Your task to perform on an android device: see tabs open on other devices in the chrome app Image 0: 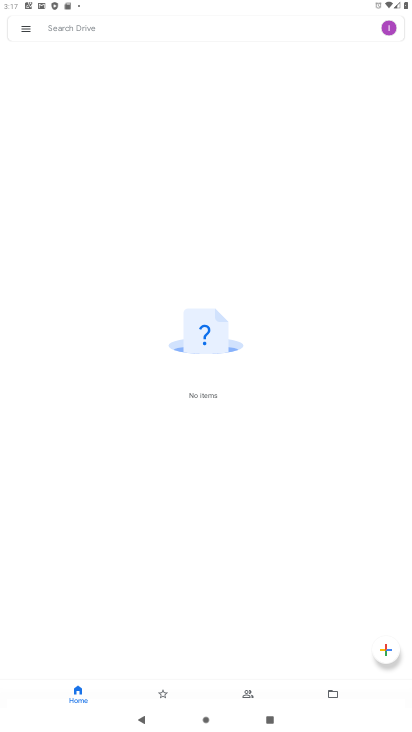
Step 0: press home button
Your task to perform on an android device: see tabs open on other devices in the chrome app Image 1: 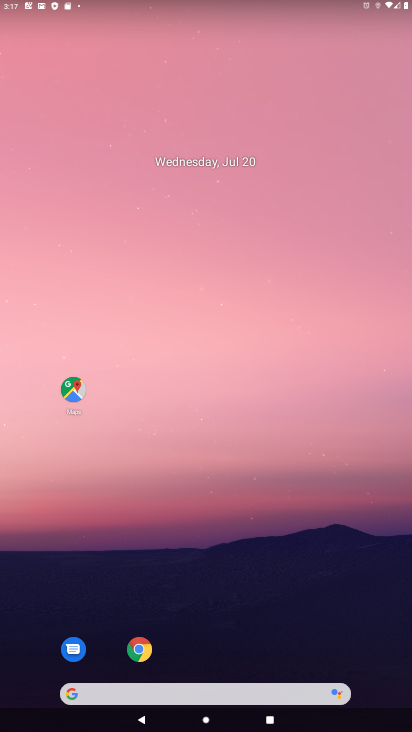
Step 1: click (137, 648)
Your task to perform on an android device: see tabs open on other devices in the chrome app Image 2: 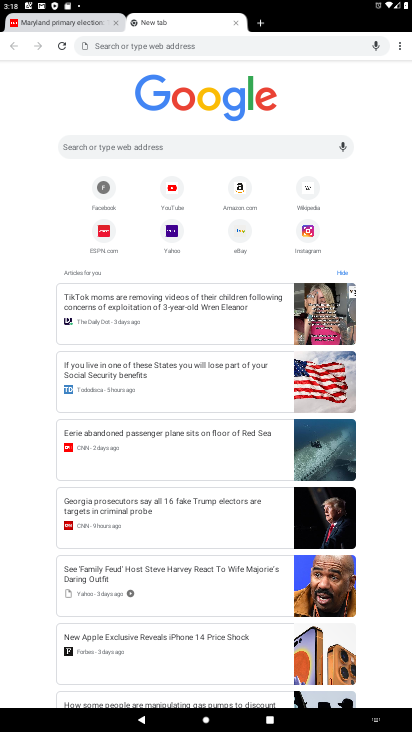
Step 2: click (400, 47)
Your task to perform on an android device: see tabs open on other devices in the chrome app Image 3: 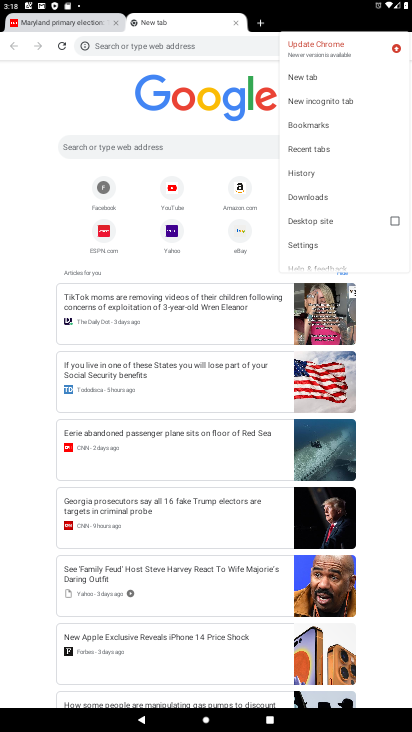
Step 3: click (327, 148)
Your task to perform on an android device: see tabs open on other devices in the chrome app Image 4: 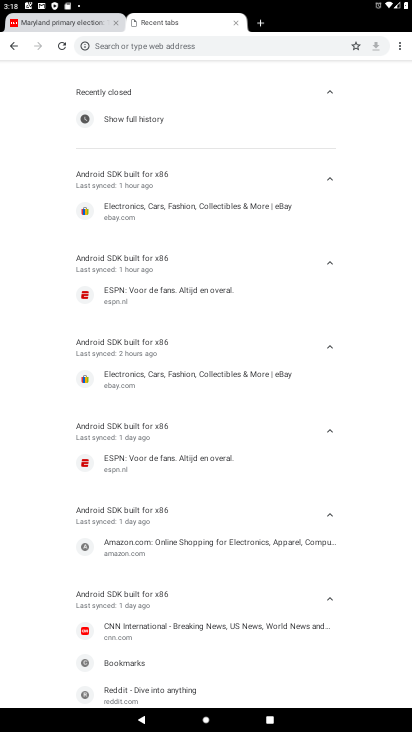
Step 4: task complete